Your task to perform on an android device: change timer sound Image 0: 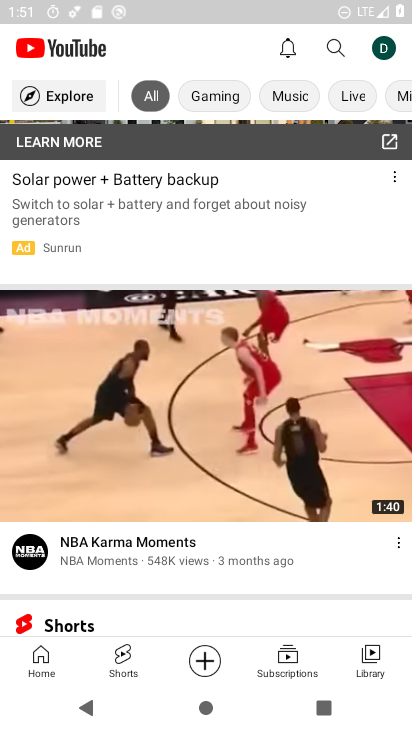
Step 0: press home button
Your task to perform on an android device: change timer sound Image 1: 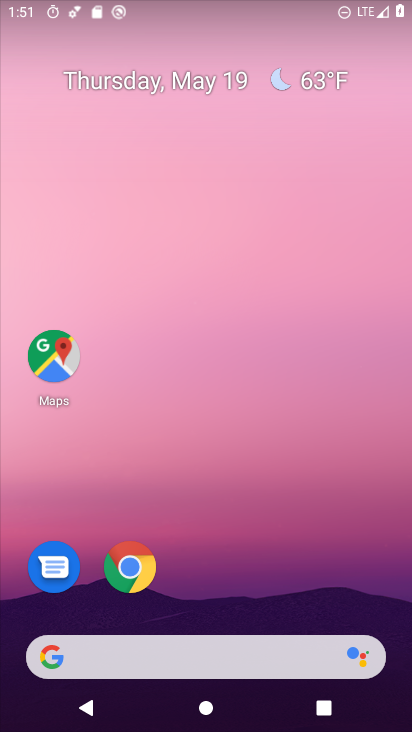
Step 1: drag from (188, 658) to (305, 96)
Your task to perform on an android device: change timer sound Image 2: 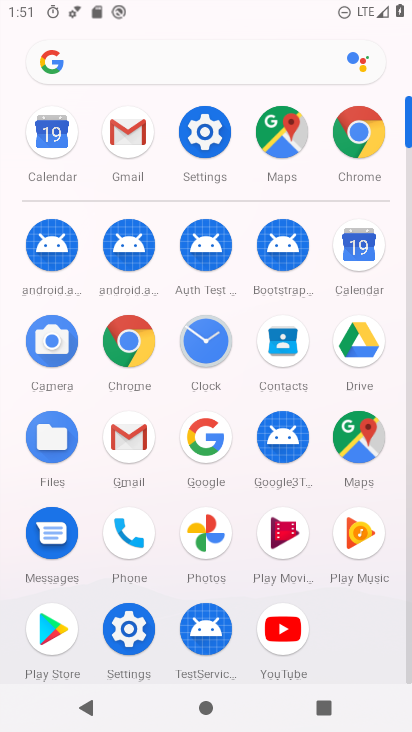
Step 2: click (202, 333)
Your task to perform on an android device: change timer sound Image 3: 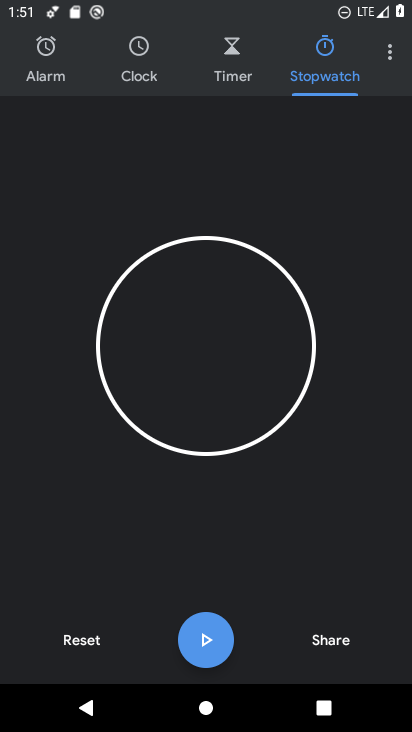
Step 3: click (388, 55)
Your task to perform on an android device: change timer sound Image 4: 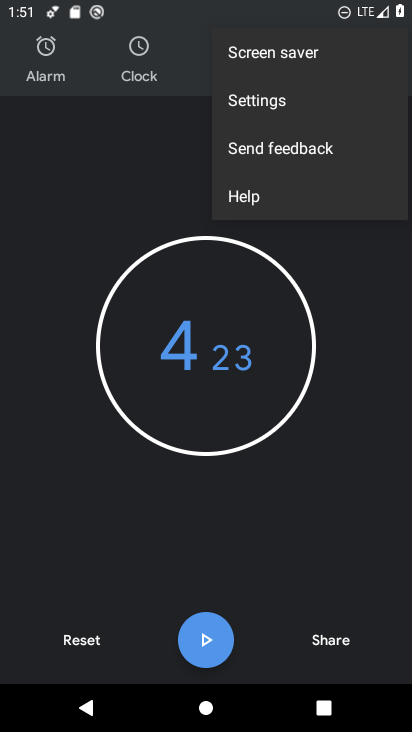
Step 4: click (286, 102)
Your task to perform on an android device: change timer sound Image 5: 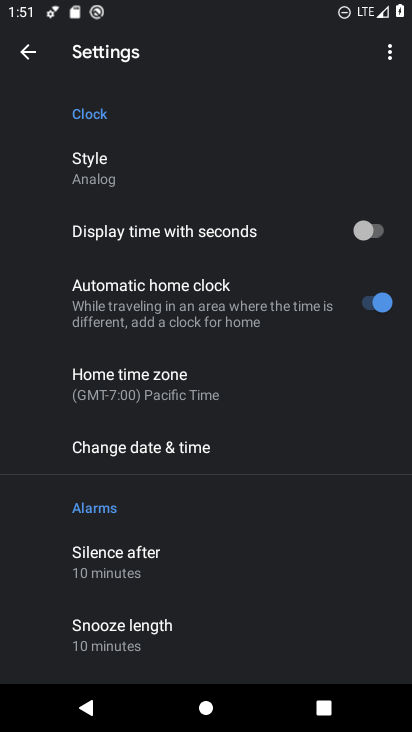
Step 5: drag from (216, 590) to (332, 44)
Your task to perform on an android device: change timer sound Image 6: 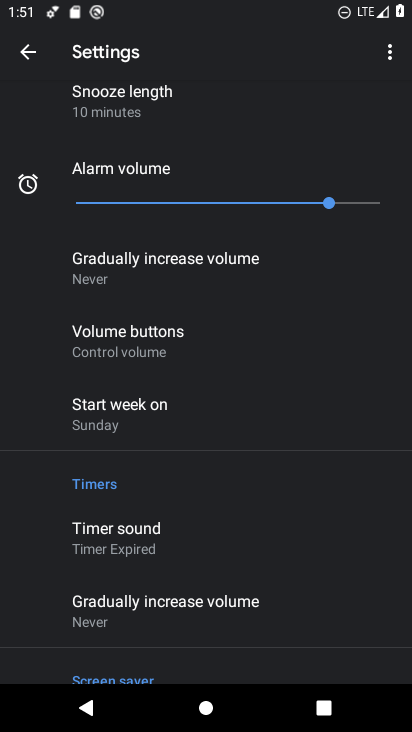
Step 6: click (136, 542)
Your task to perform on an android device: change timer sound Image 7: 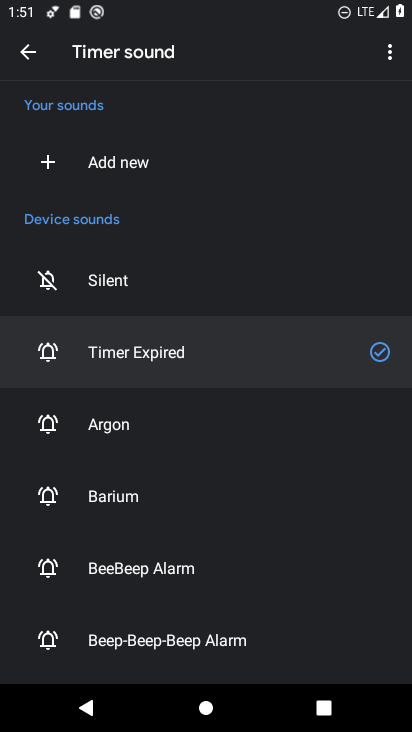
Step 7: click (115, 493)
Your task to perform on an android device: change timer sound Image 8: 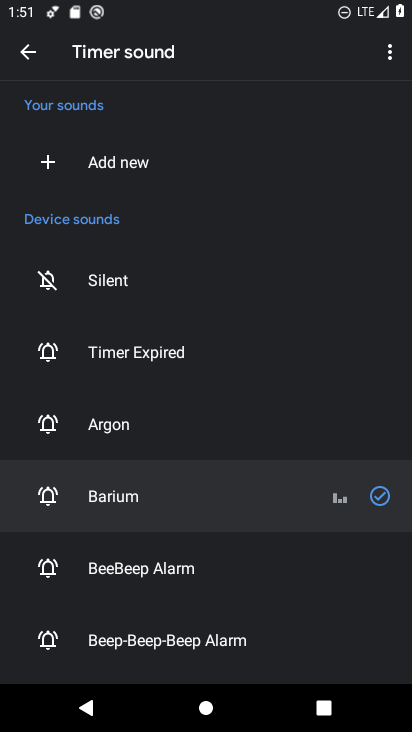
Step 8: task complete